Your task to perform on an android device: Add energizer triple a to the cart on newegg, then select checkout. Image 0: 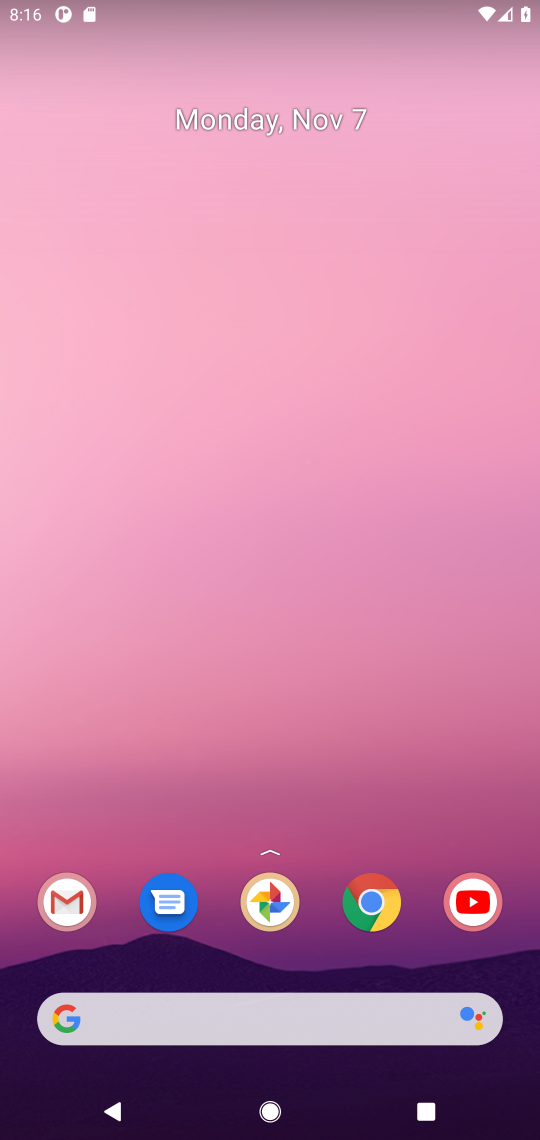
Step 0: click (382, 908)
Your task to perform on an android device: Add energizer triple a to the cart on newegg, then select checkout. Image 1: 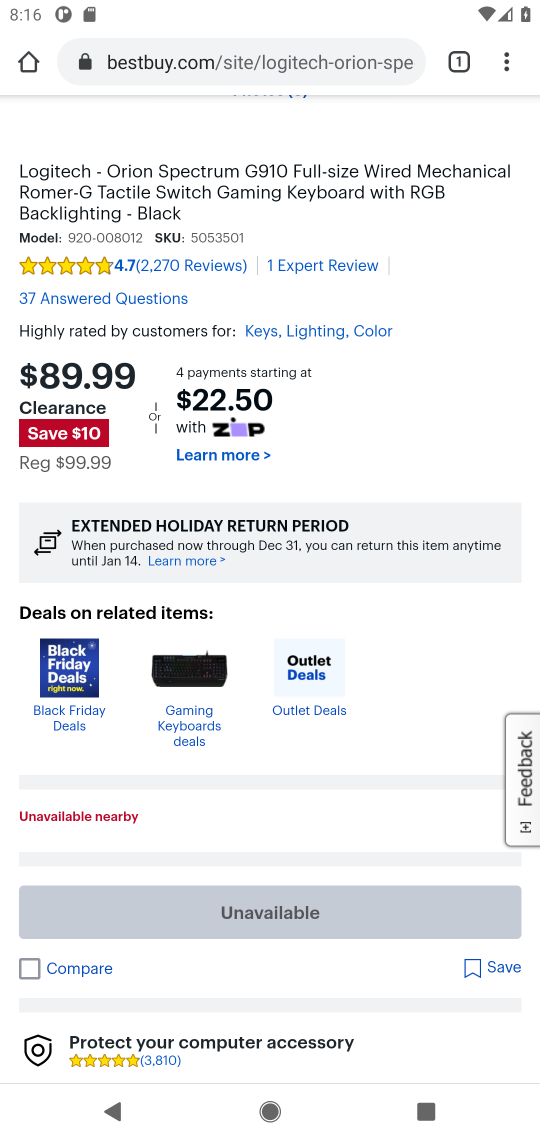
Step 1: click (286, 60)
Your task to perform on an android device: Add energizer triple a to the cart on newegg, then select checkout. Image 2: 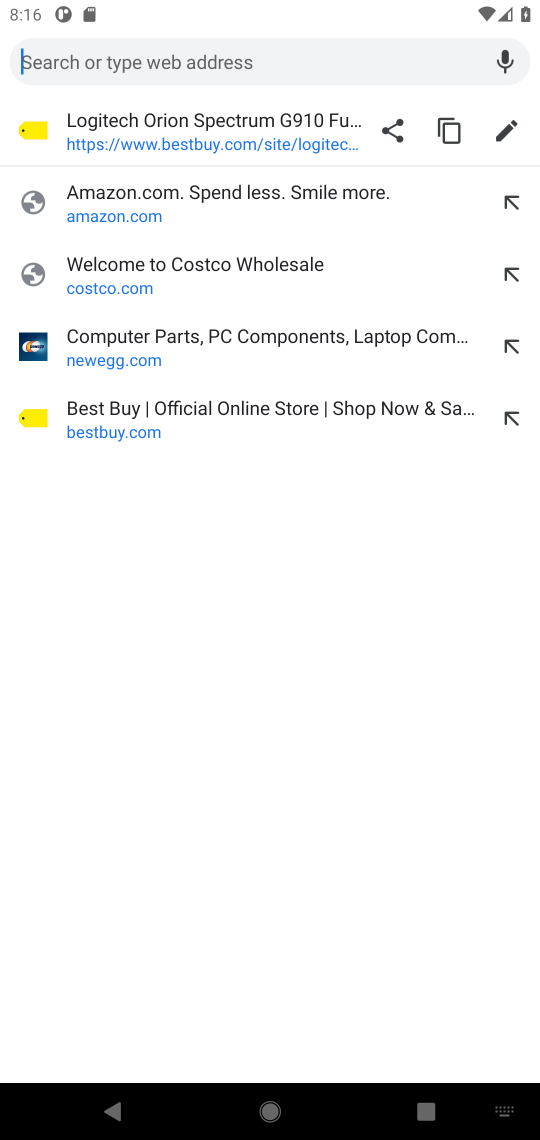
Step 2: click (115, 362)
Your task to perform on an android device: Add energizer triple a to the cart on newegg, then select checkout. Image 3: 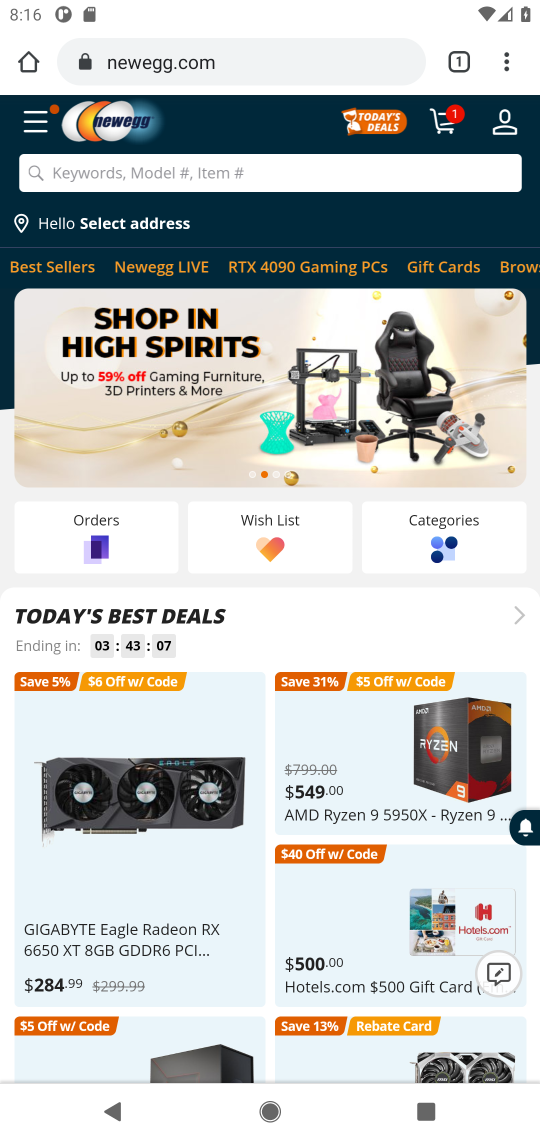
Step 3: click (108, 170)
Your task to perform on an android device: Add energizer triple a to the cart on newegg, then select checkout. Image 4: 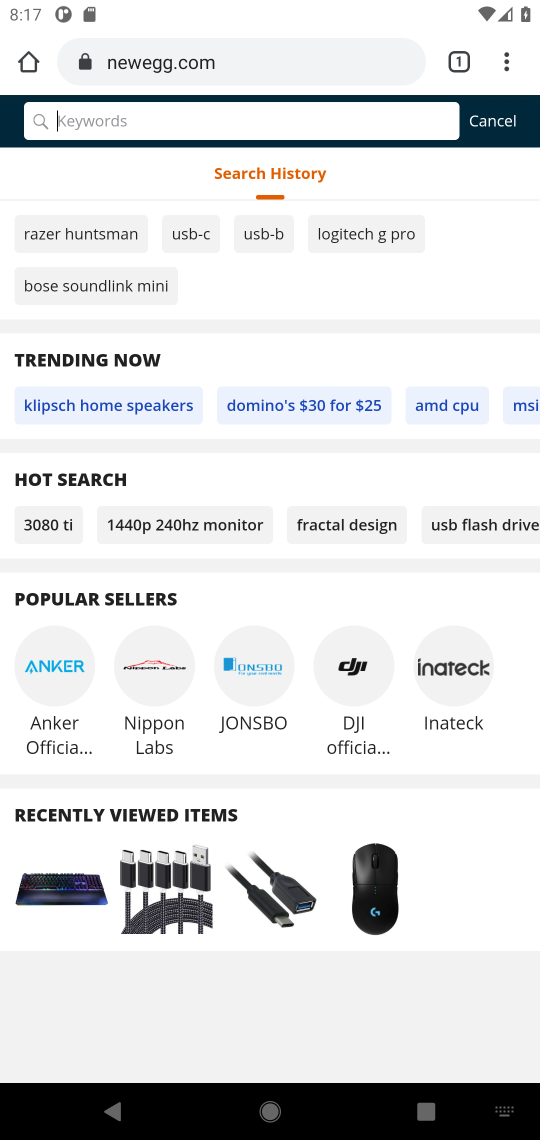
Step 4: type "energizer triple a"
Your task to perform on an android device: Add energizer triple a to the cart on newegg, then select checkout. Image 5: 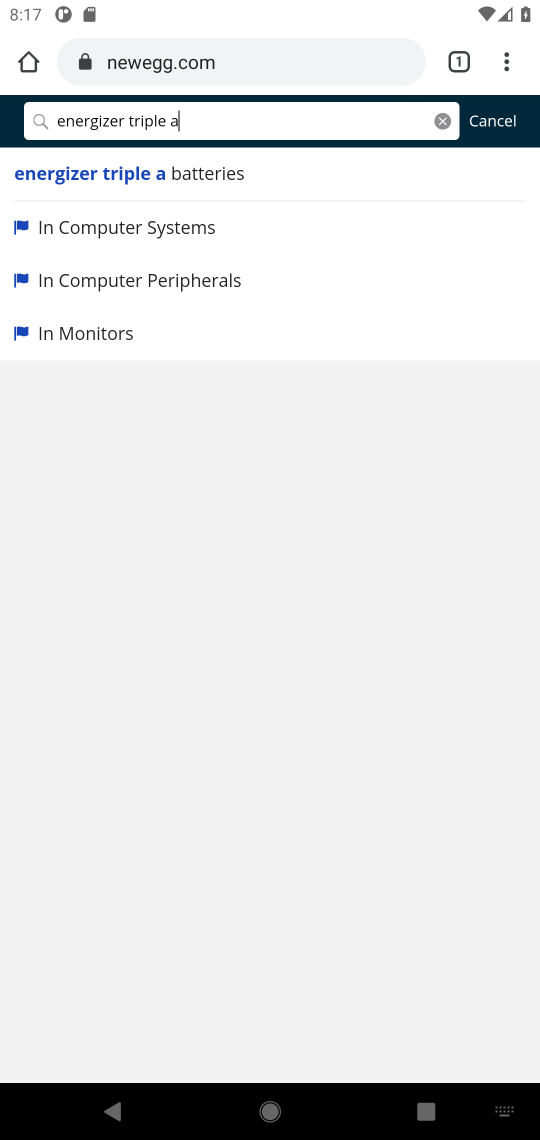
Step 5: click (45, 123)
Your task to perform on an android device: Add energizer triple a to the cart on newegg, then select checkout. Image 6: 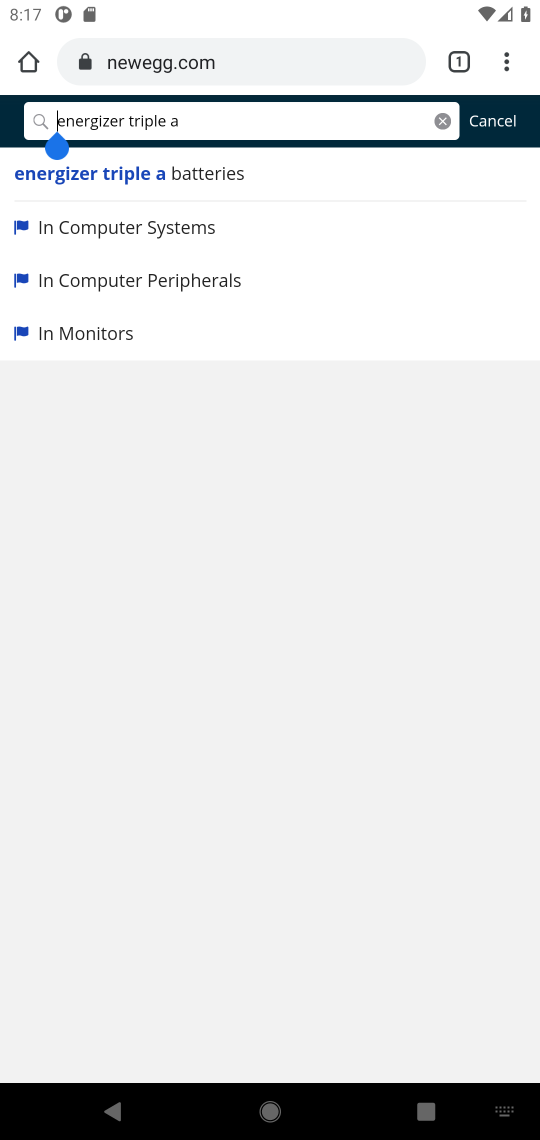
Step 6: click (31, 123)
Your task to perform on an android device: Add energizer triple a to the cart on newegg, then select checkout. Image 7: 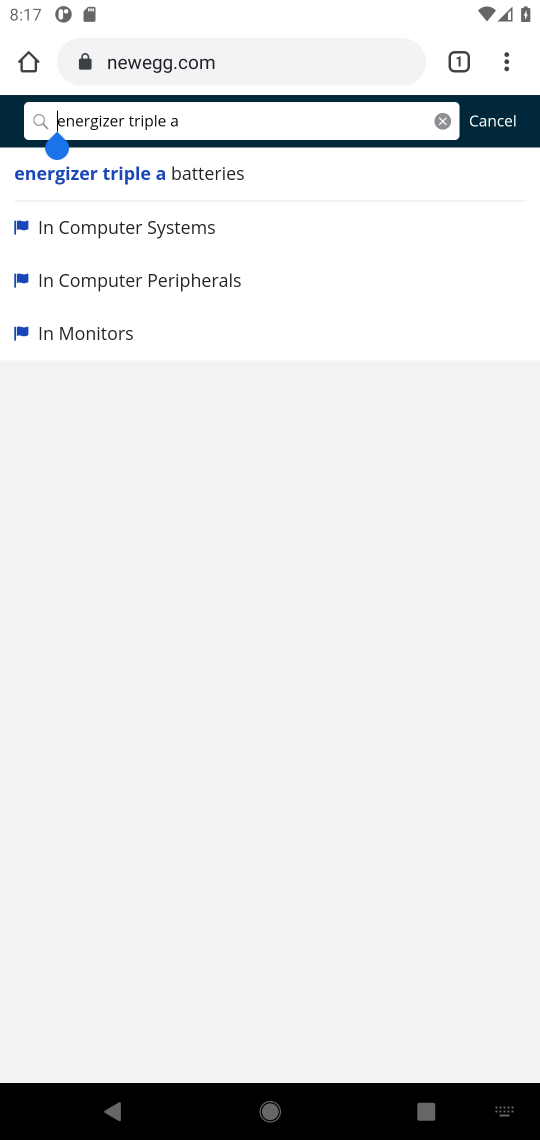
Step 7: click (74, 167)
Your task to perform on an android device: Add energizer triple a to the cart on newegg, then select checkout. Image 8: 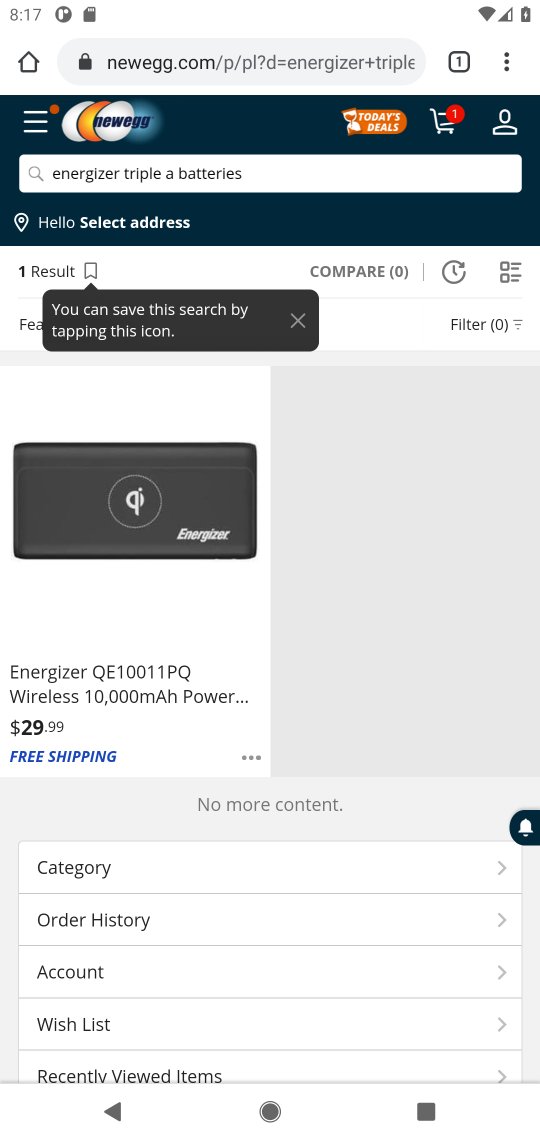
Step 8: task complete